Your task to perform on an android device: Is it going to rain today? Image 0: 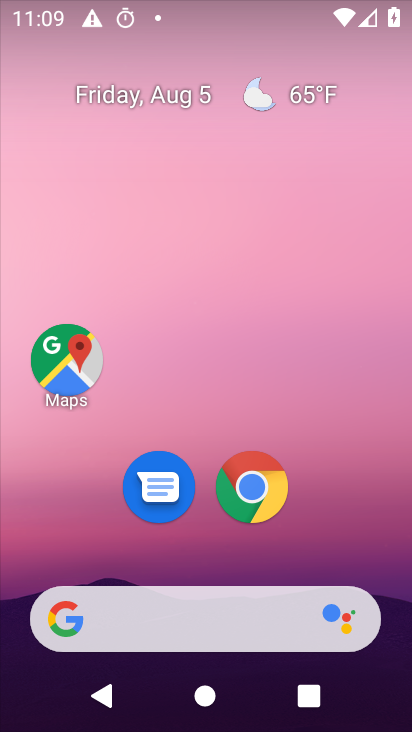
Step 0: click (177, 623)
Your task to perform on an android device: Is it going to rain today? Image 1: 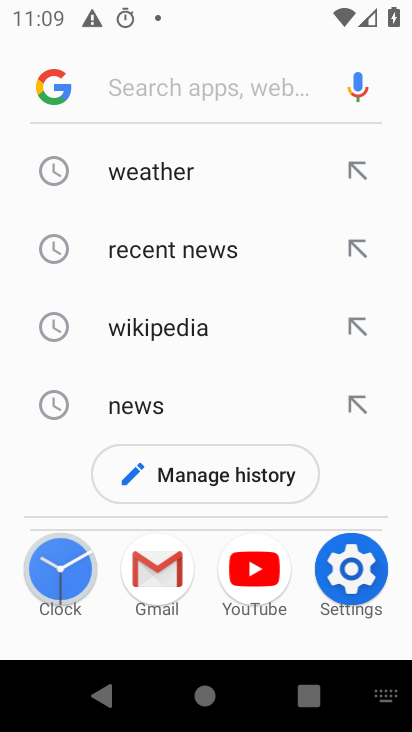
Step 1: click (192, 168)
Your task to perform on an android device: Is it going to rain today? Image 2: 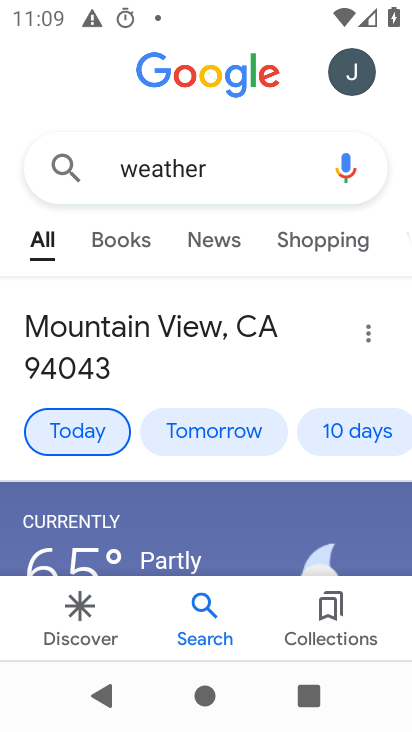
Step 2: task complete